Your task to perform on an android device: delete browsing data in the chrome app Image 0: 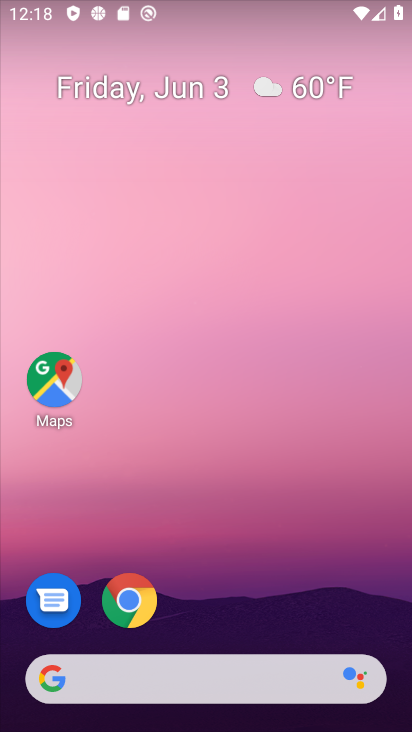
Step 0: click (127, 602)
Your task to perform on an android device: delete browsing data in the chrome app Image 1: 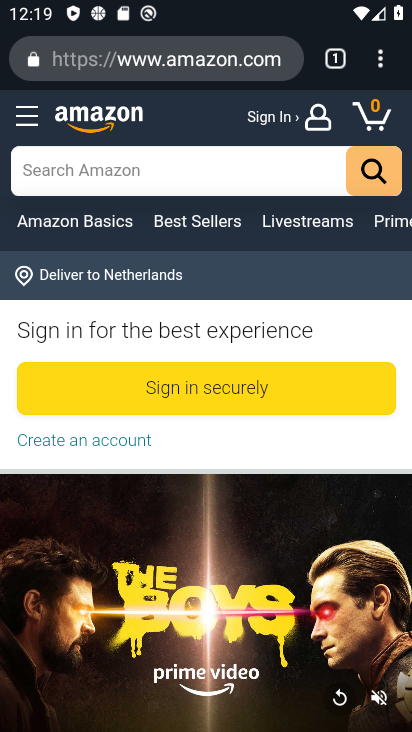
Step 1: drag from (377, 63) to (222, 328)
Your task to perform on an android device: delete browsing data in the chrome app Image 2: 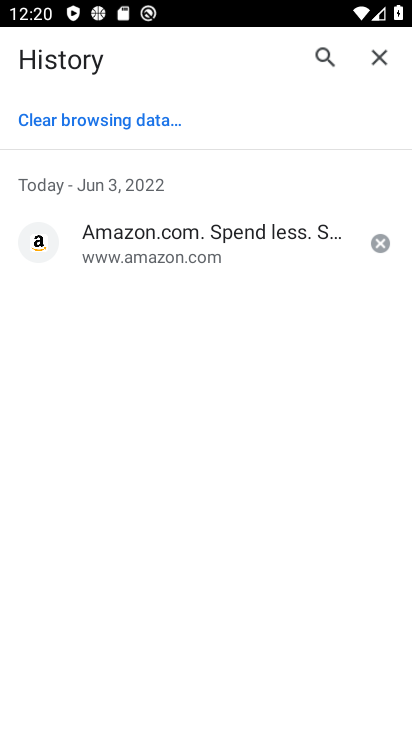
Step 2: click (126, 121)
Your task to perform on an android device: delete browsing data in the chrome app Image 3: 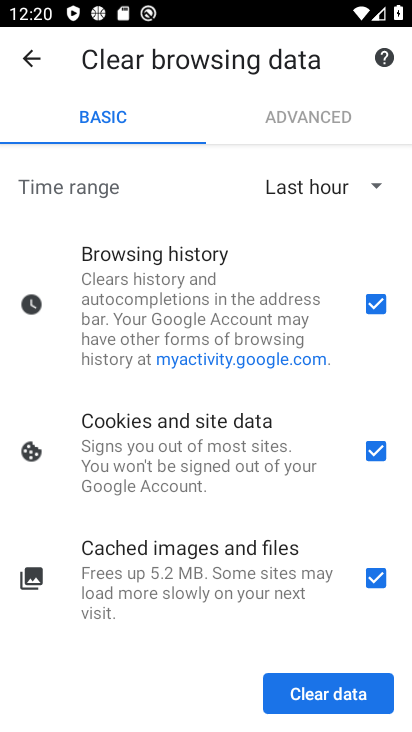
Step 3: click (333, 183)
Your task to perform on an android device: delete browsing data in the chrome app Image 4: 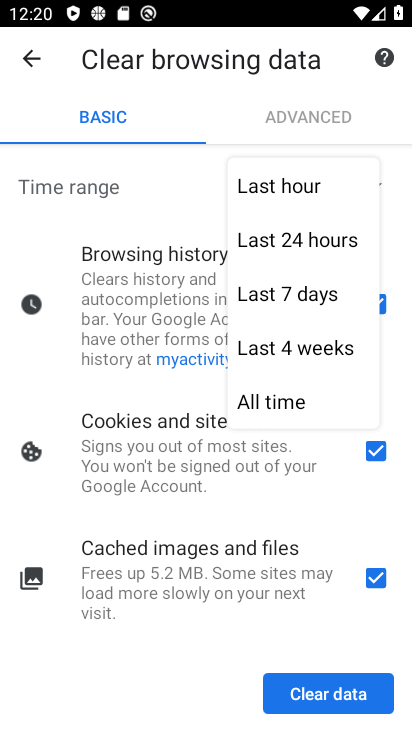
Step 4: click (271, 398)
Your task to perform on an android device: delete browsing data in the chrome app Image 5: 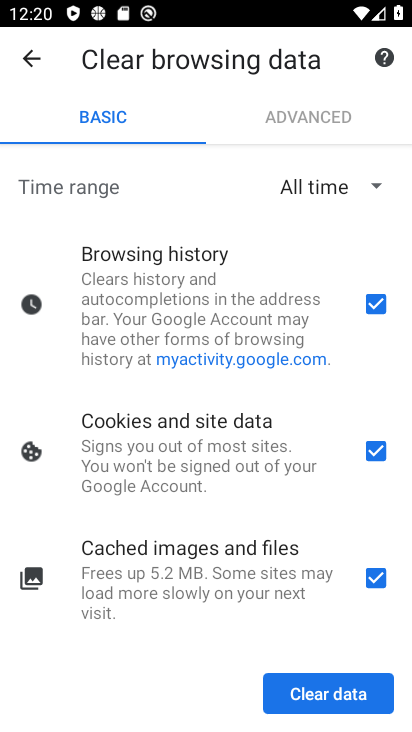
Step 5: click (352, 693)
Your task to perform on an android device: delete browsing data in the chrome app Image 6: 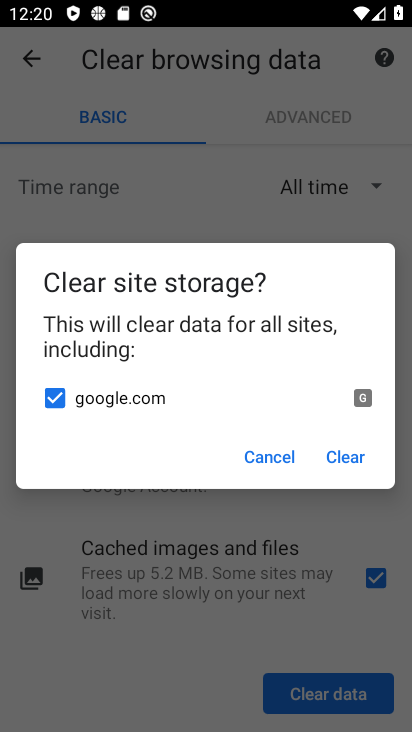
Step 6: click (349, 448)
Your task to perform on an android device: delete browsing data in the chrome app Image 7: 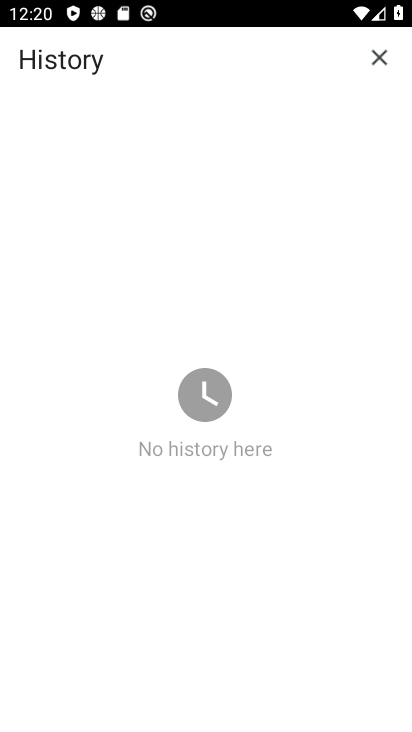
Step 7: task complete